Your task to perform on an android device: See recent photos Image 0: 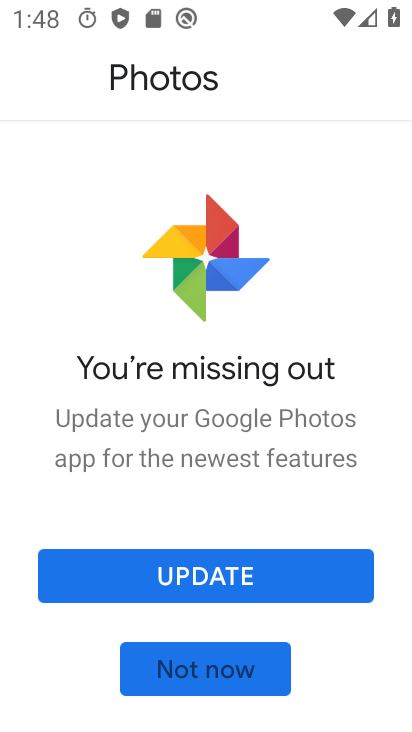
Step 0: task impossible